Your task to perform on an android device: Add "dell xps" to the cart on newegg Image 0: 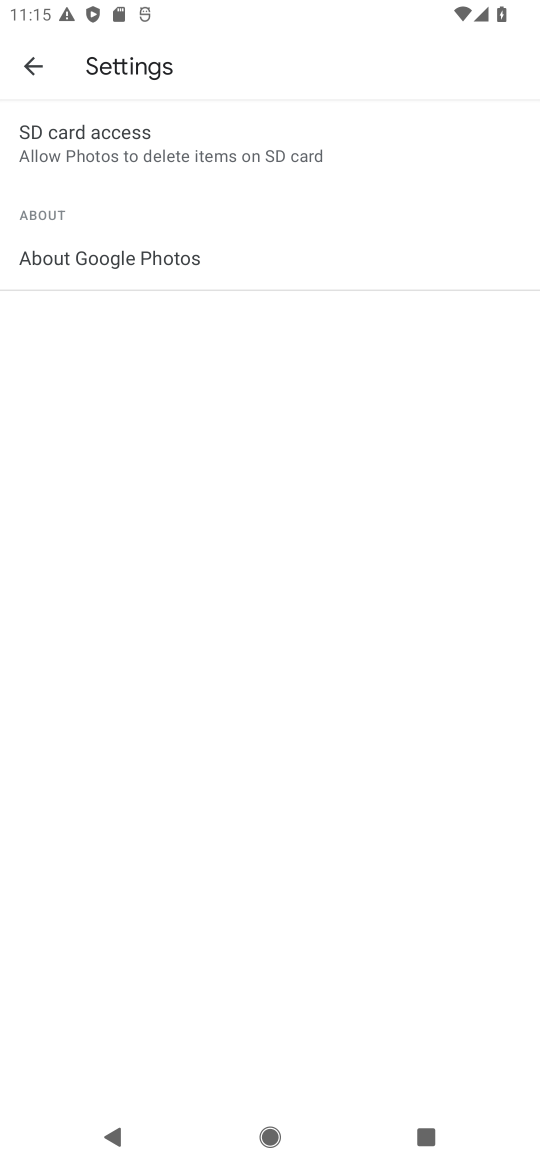
Step 0: press home button
Your task to perform on an android device: Add "dell xps" to the cart on newegg Image 1: 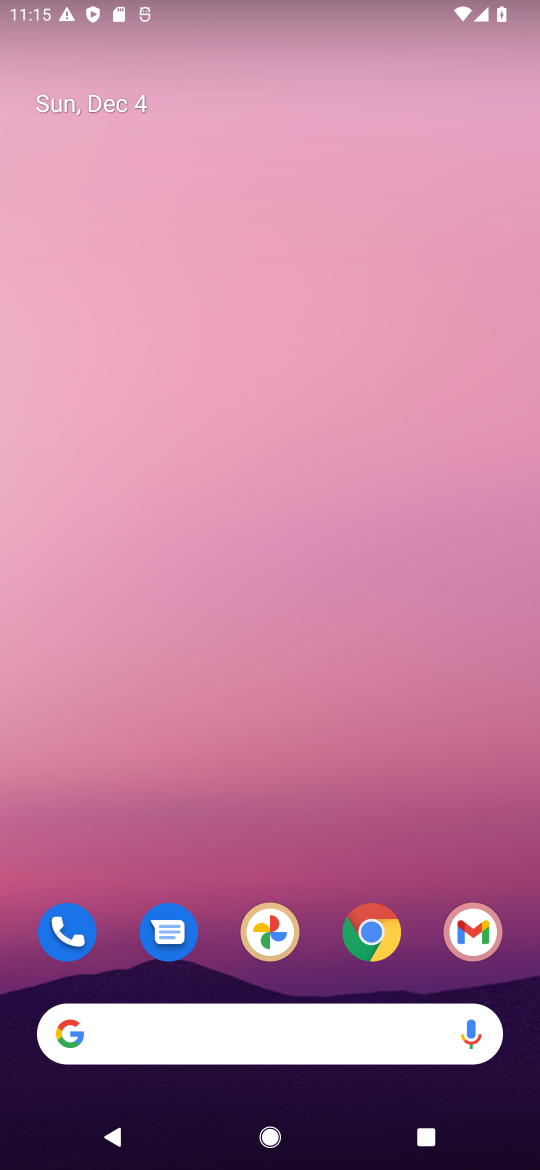
Step 1: click (376, 924)
Your task to perform on an android device: Add "dell xps" to the cart on newegg Image 2: 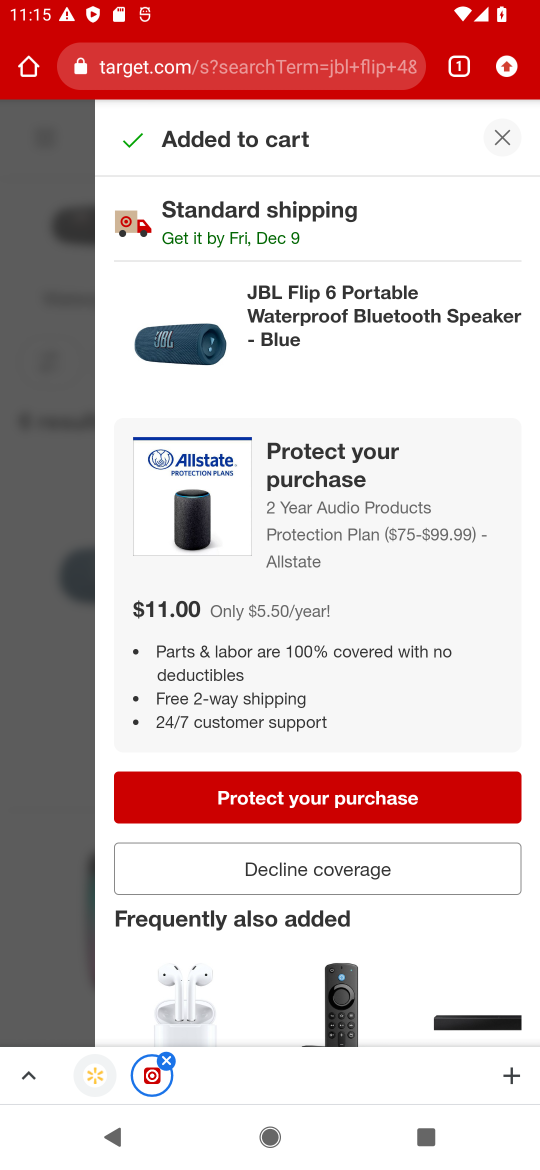
Step 2: click (245, 57)
Your task to perform on an android device: Add "dell xps" to the cart on newegg Image 3: 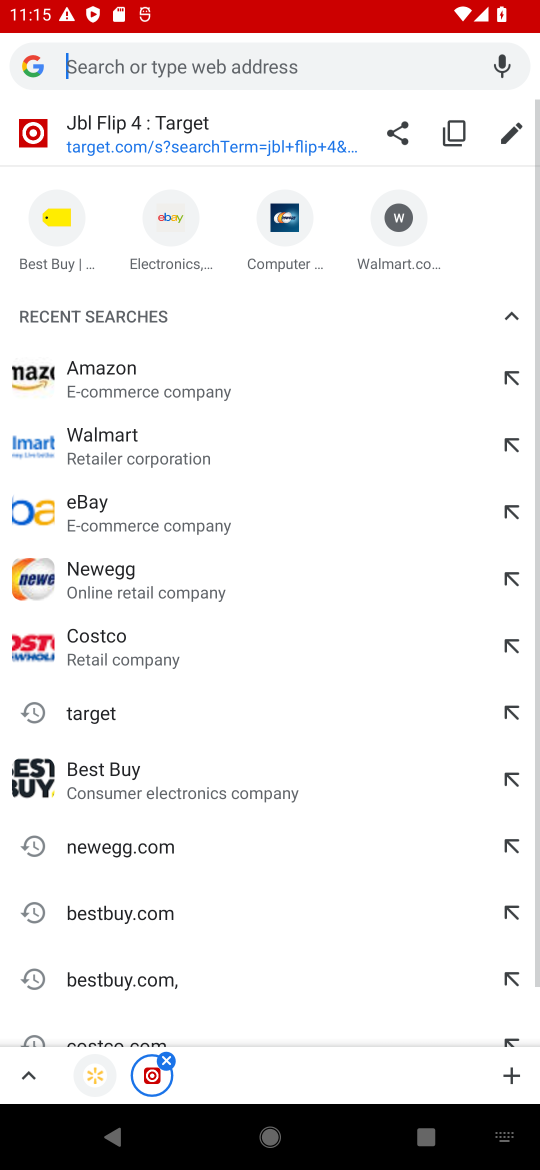
Step 3: click (126, 581)
Your task to perform on an android device: Add "dell xps" to the cart on newegg Image 4: 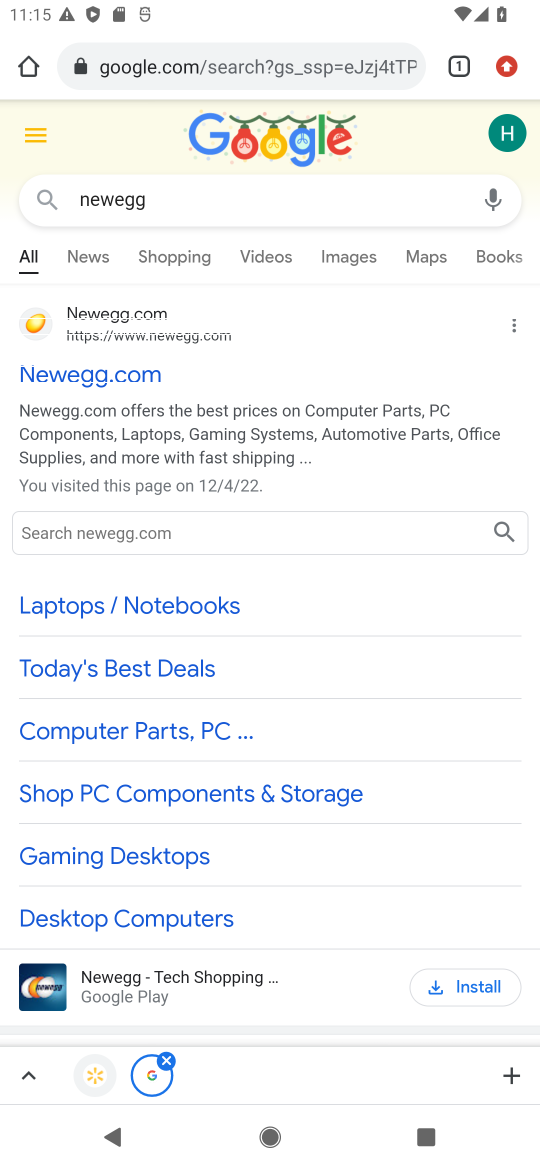
Step 4: click (113, 377)
Your task to perform on an android device: Add "dell xps" to the cart on newegg Image 5: 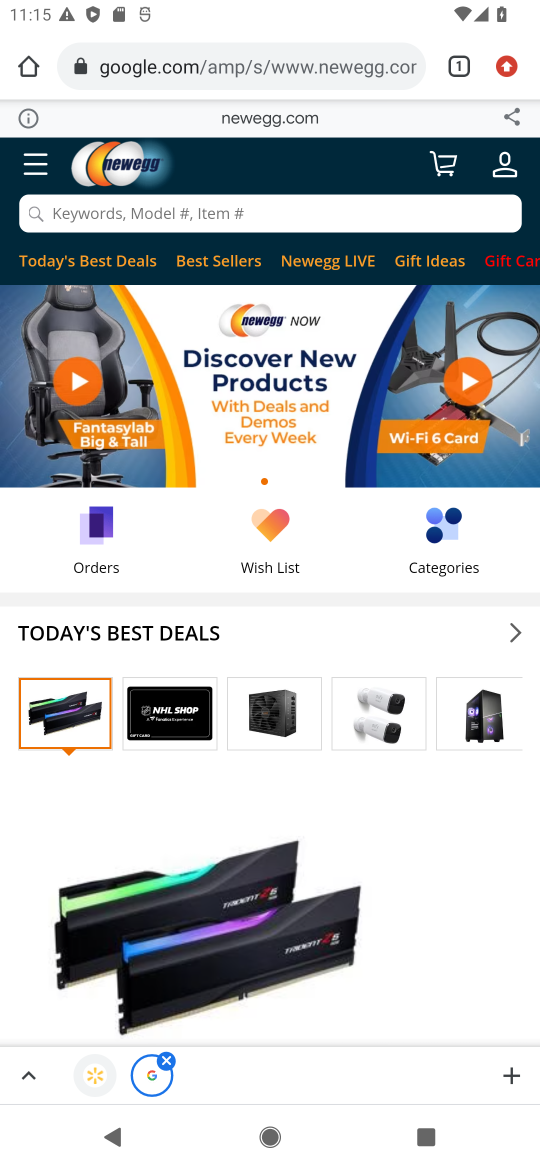
Step 5: click (338, 207)
Your task to perform on an android device: Add "dell xps" to the cart on newegg Image 6: 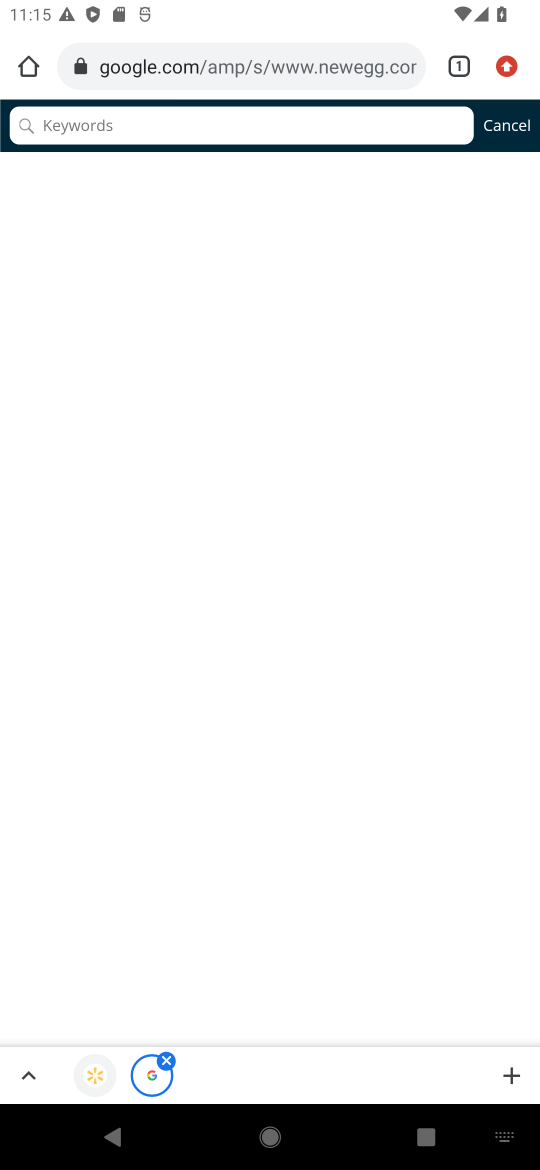
Step 6: type "dell xps"
Your task to perform on an android device: Add "dell xps" to the cart on newegg Image 7: 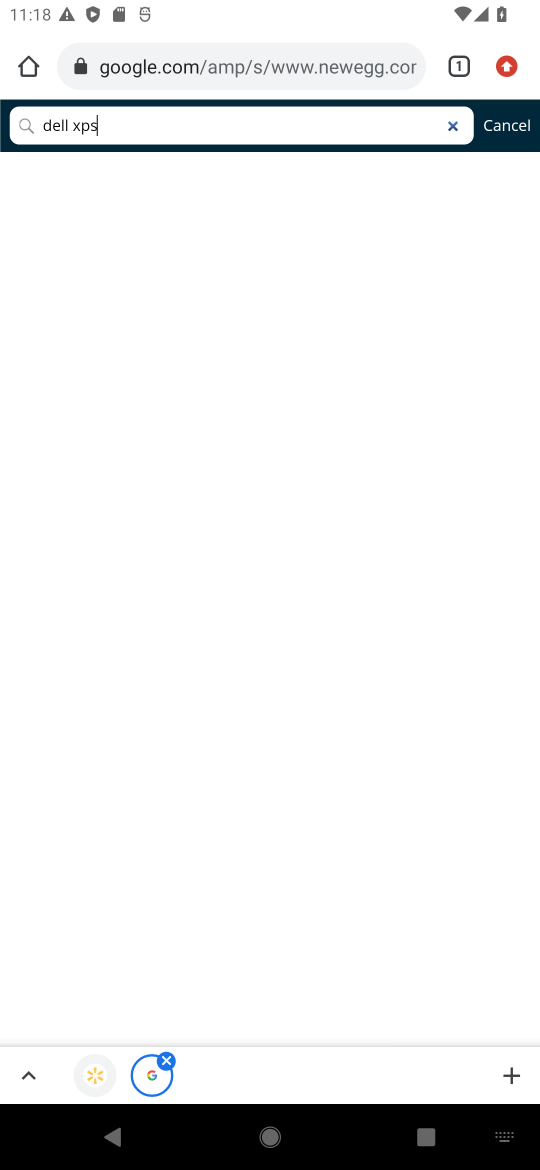
Step 7: task complete